Your task to perform on an android device: Open ESPN.com Image 0: 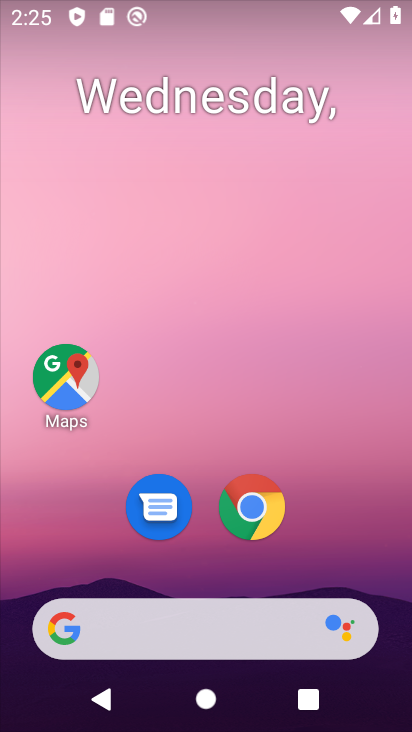
Step 0: click (261, 500)
Your task to perform on an android device: Open ESPN.com Image 1: 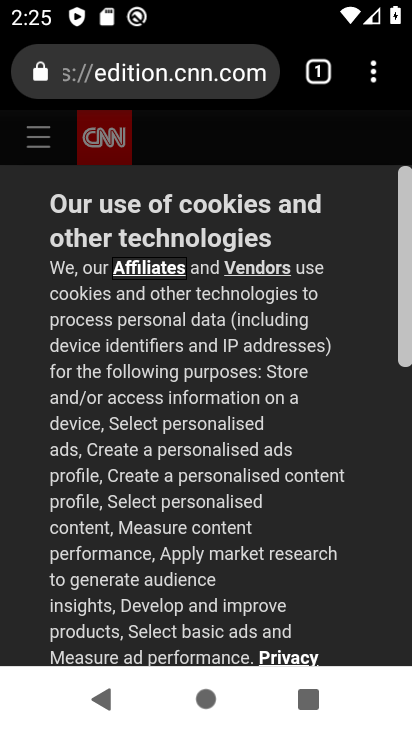
Step 1: click (330, 67)
Your task to perform on an android device: Open ESPN.com Image 2: 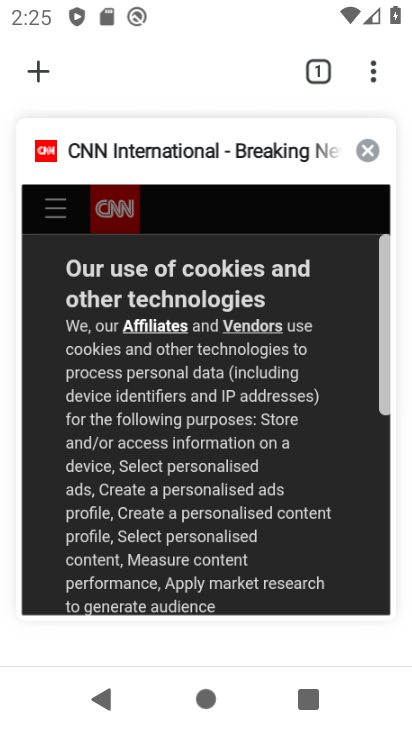
Step 2: click (368, 155)
Your task to perform on an android device: Open ESPN.com Image 3: 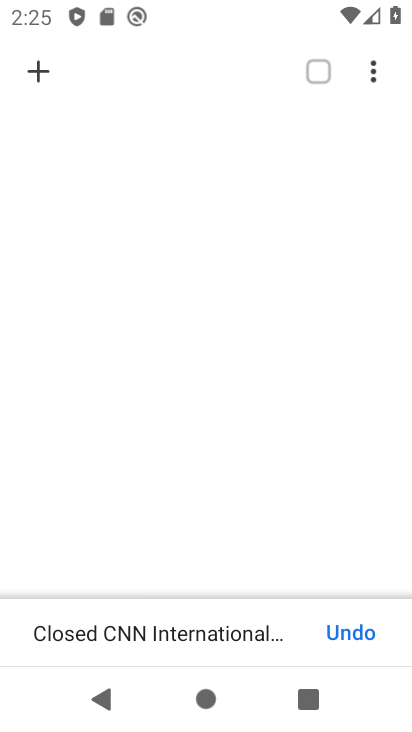
Step 3: click (34, 80)
Your task to perform on an android device: Open ESPN.com Image 4: 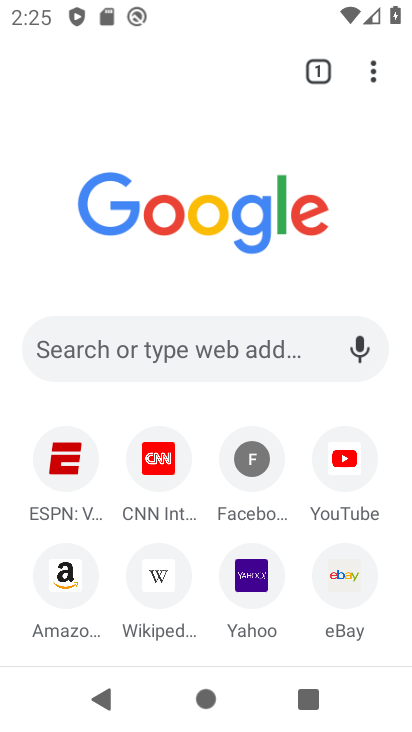
Step 4: click (64, 465)
Your task to perform on an android device: Open ESPN.com Image 5: 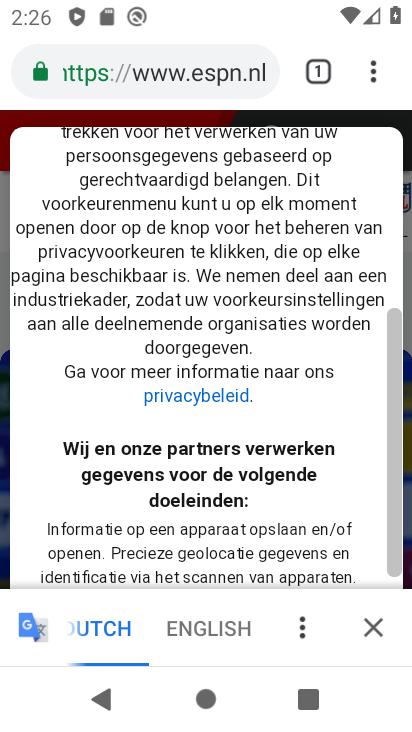
Step 5: task complete